Your task to perform on an android device: turn on showing notifications on the lock screen Image 0: 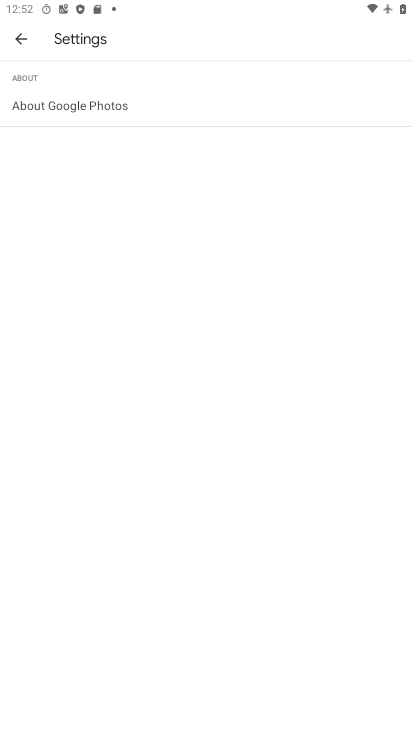
Step 0: press home button
Your task to perform on an android device: turn on showing notifications on the lock screen Image 1: 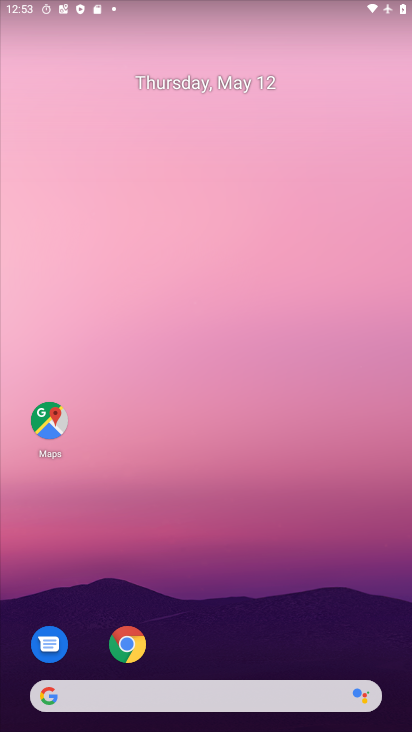
Step 1: drag from (256, 601) to (217, 56)
Your task to perform on an android device: turn on showing notifications on the lock screen Image 2: 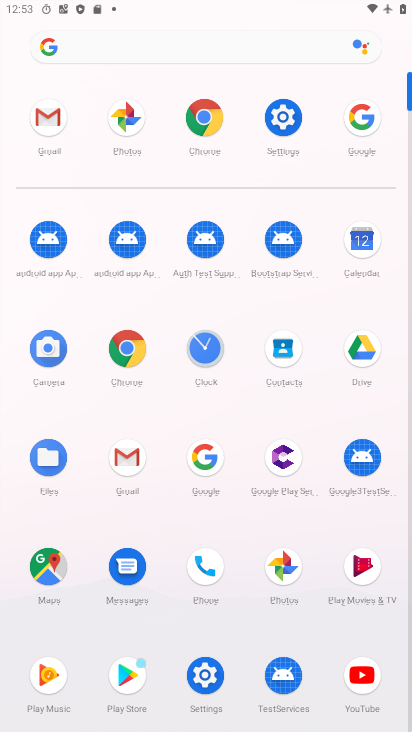
Step 2: click (210, 677)
Your task to perform on an android device: turn on showing notifications on the lock screen Image 3: 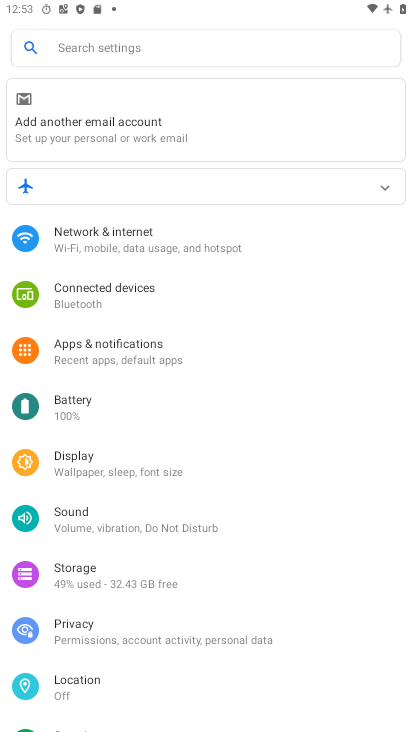
Step 3: click (123, 356)
Your task to perform on an android device: turn on showing notifications on the lock screen Image 4: 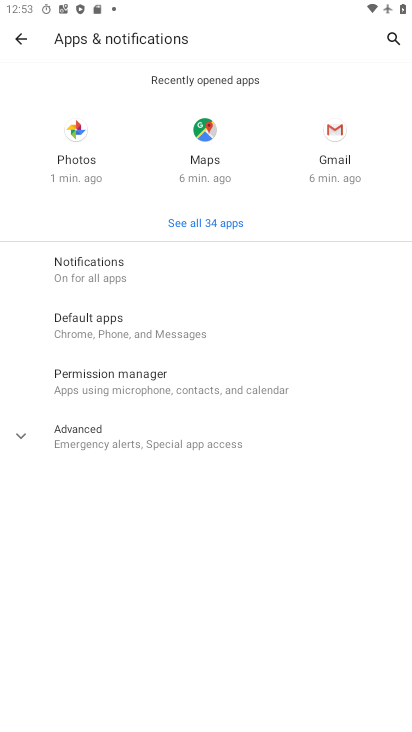
Step 4: click (175, 275)
Your task to perform on an android device: turn on showing notifications on the lock screen Image 5: 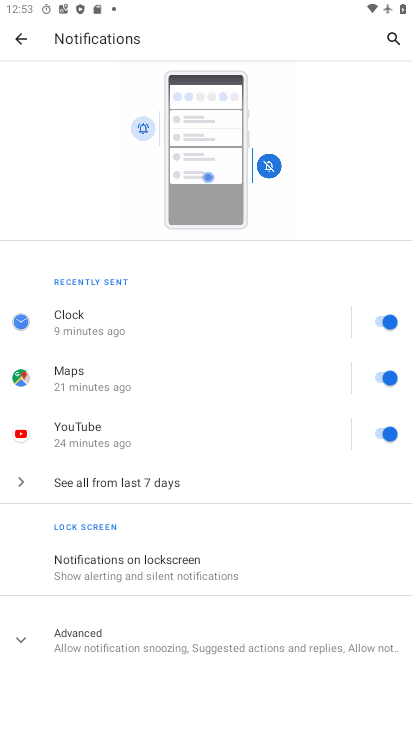
Step 5: click (161, 573)
Your task to perform on an android device: turn on showing notifications on the lock screen Image 6: 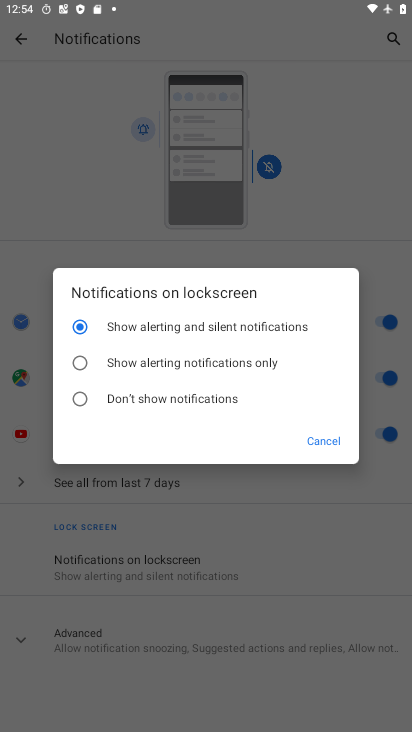
Step 6: task complete